Your task to perform on an android device: Show me popular games on the Play Store Image 0: 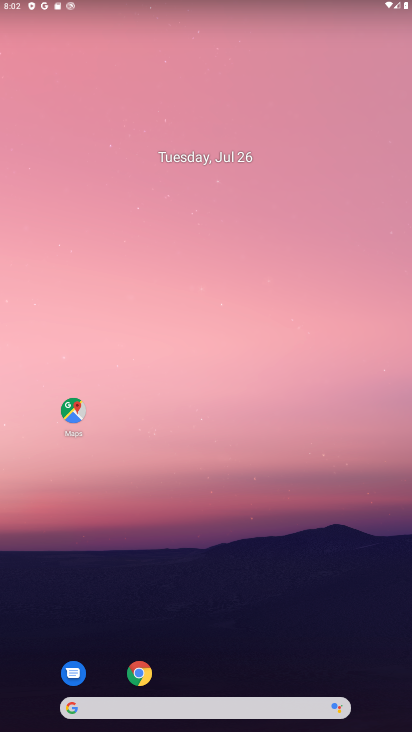
Step 0: drag from (222, 646) to (222, 102)
Your task to perform on an android device: Show me popular games on the Play Store Image 1: 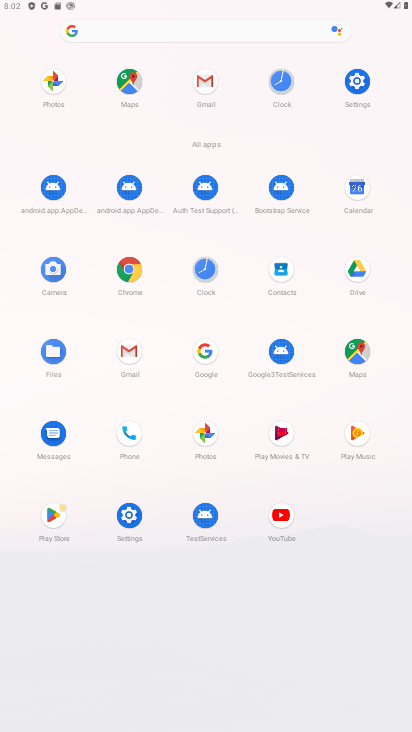
Step 1: click (48, 513)
Your task to perform on an android device: Show me popular games on the Play Store Image 2: 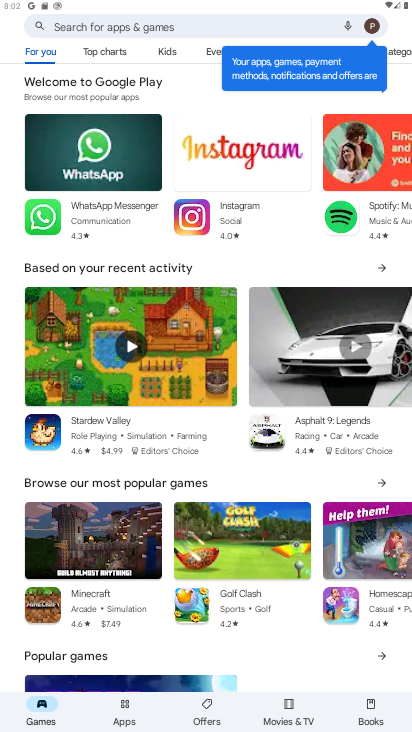
Step 2: click (105, 49)
Your task to perform on an android device: Show me popular games on the Play Store Image 3: 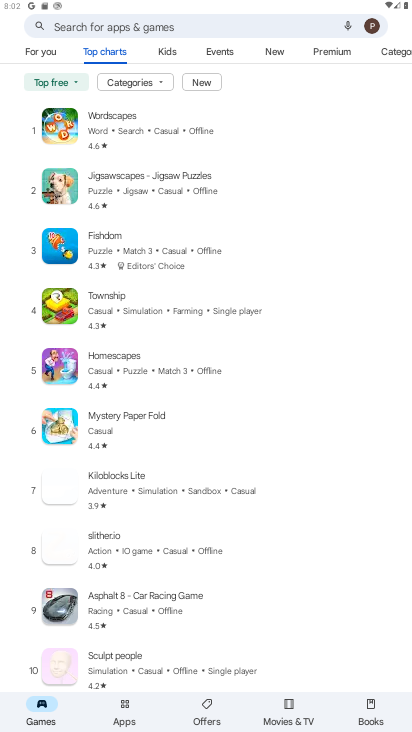
Step 3: task complete